Your task to perform on an android device: Open ESPN.com Image 0: 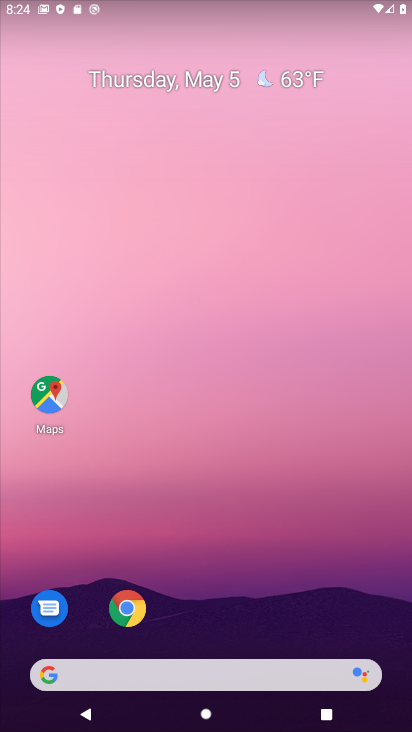
Step 0: click (126, 609)
Your task to perform on an android device: Open ESPN.com Image 1: 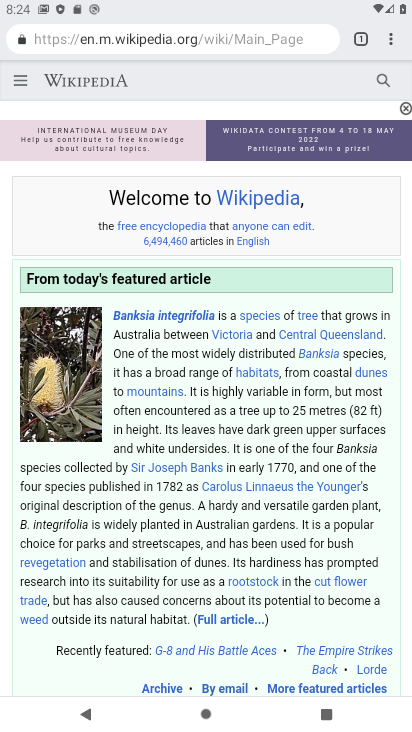
Step 1: click (165, 45)
Your task to perform on an android device: Open ESPN.com Image 2: 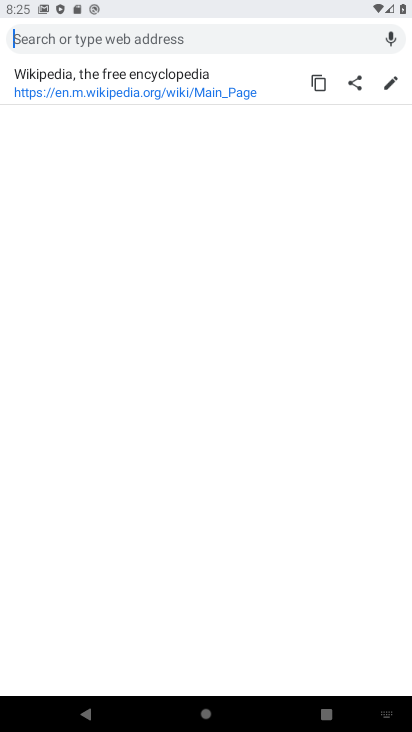
Step 2: type "espn.com"
Your task to perform on an android device: Open ESPN.com Image 3: 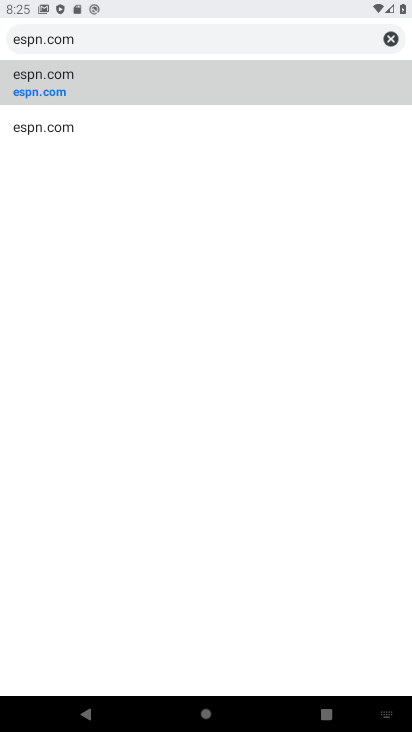
Step 3: click (39, 77)
Your task to perform on an android device: Open ESPN.com Image 4: 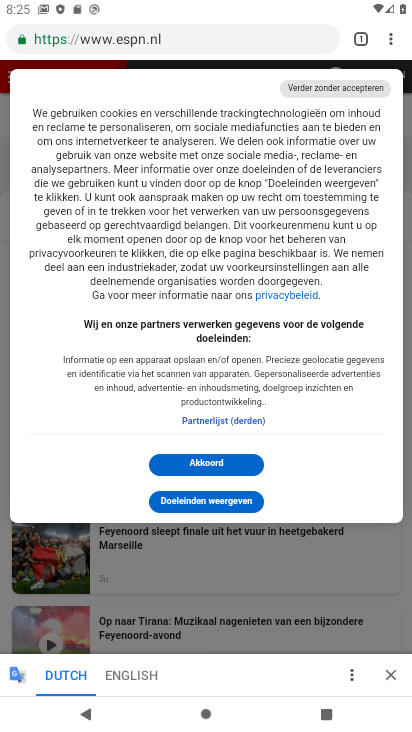
Step 4: task complete